Your task to perform on an android device: toggle notification dots Image 0: 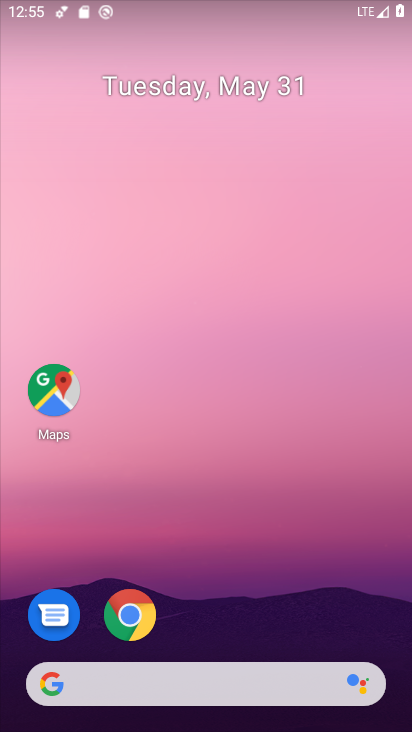
Step 0: drag from (226, 580) to (218, 1)
Your task to perform on an android device: toggle notification dots Image 1: 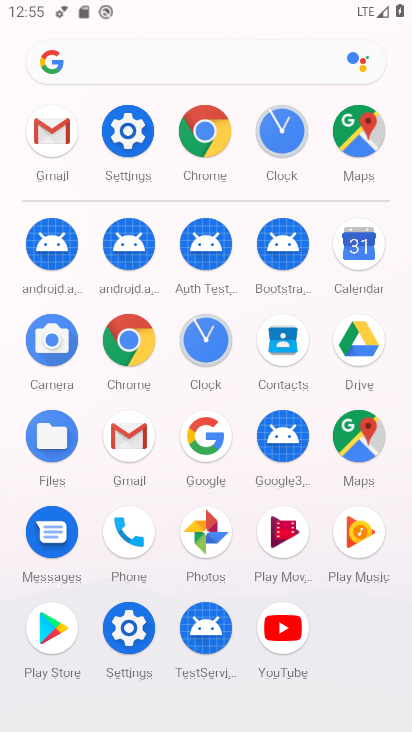
Step 1: click (131, 141)
Your task to perform on an android device: toggle notification dots Image 2: 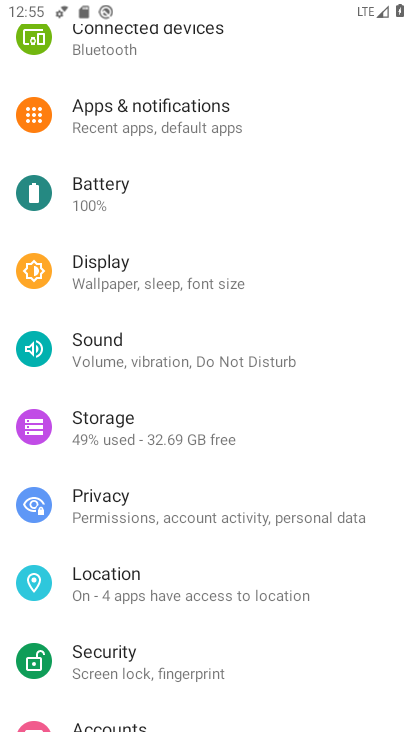
Step 2: click (178, 116)
Your task to perform on an android device: toggle notification dots Image 3: 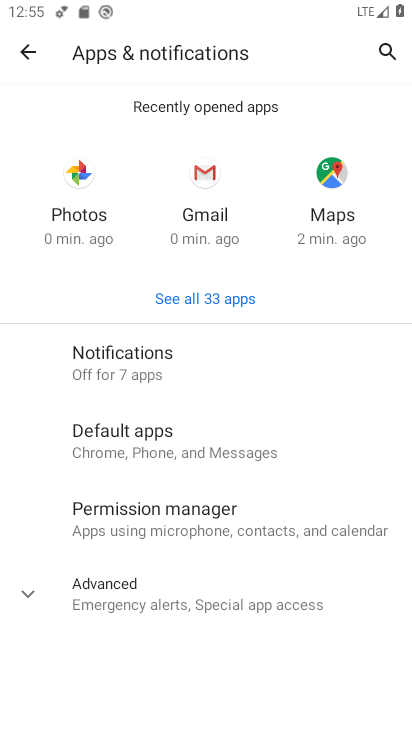
Step 3: click (138, 357)
Your task to perform on an android device: toggle notification dots Image 4: 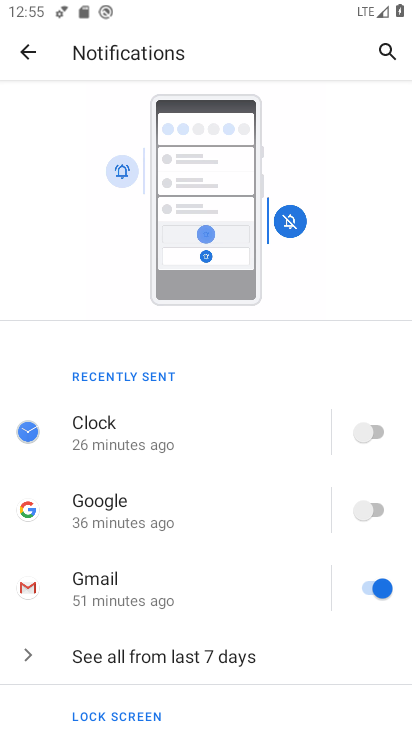
Step 4: drag from (230, 524) to (255, 145)
Your task to perform on an android device: toggle notification dots Image 5: 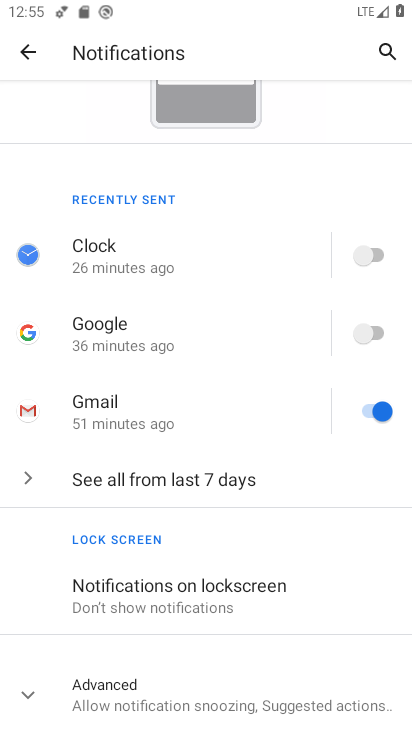
Step 5: drag from (186, 595) to (207, 377)
Your task to perform on an android device: toggle notification dots Image 6: 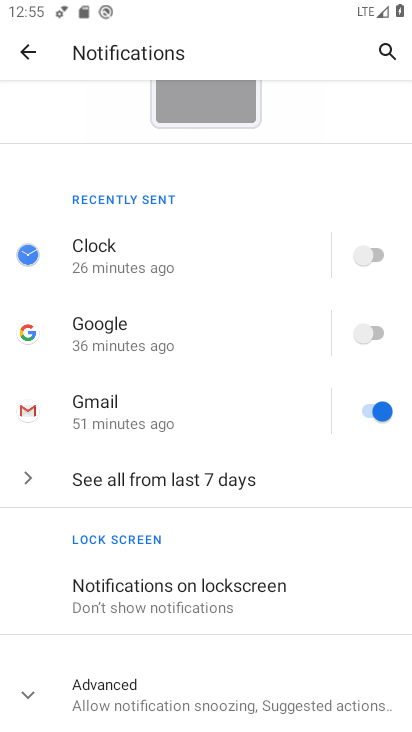
Step 6: click (122, 690)
Your task to perform on an android device: toggle notification dots Image 7: 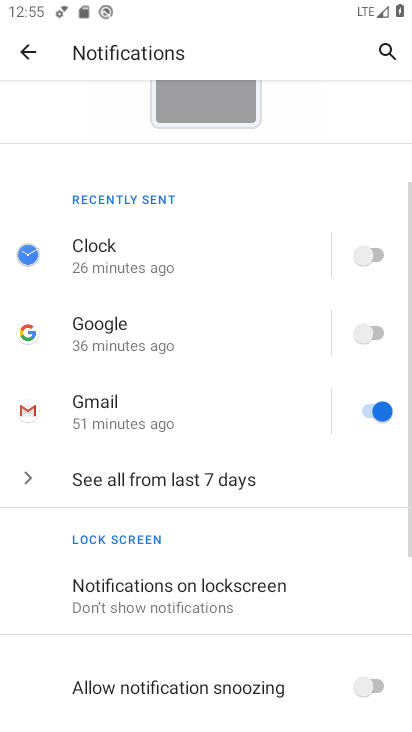
Step 7: drag from (139, 612) to (220, 156)
Your task to perform on an android device: toggle notification dots Image 8: 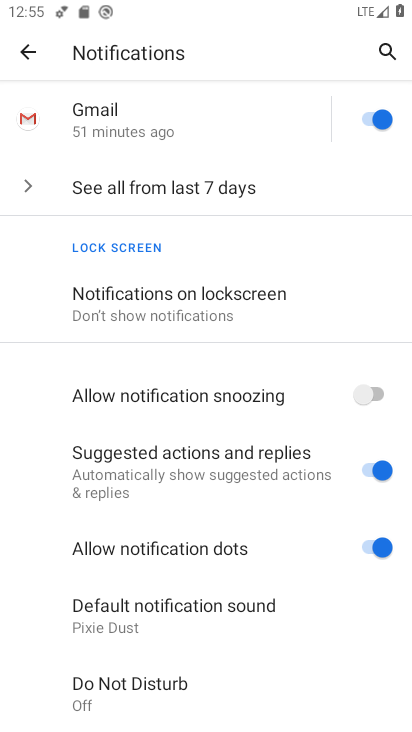
Step 8: click (353, 545)
Your task to perform on an android device: toggle notification dots Image 9: 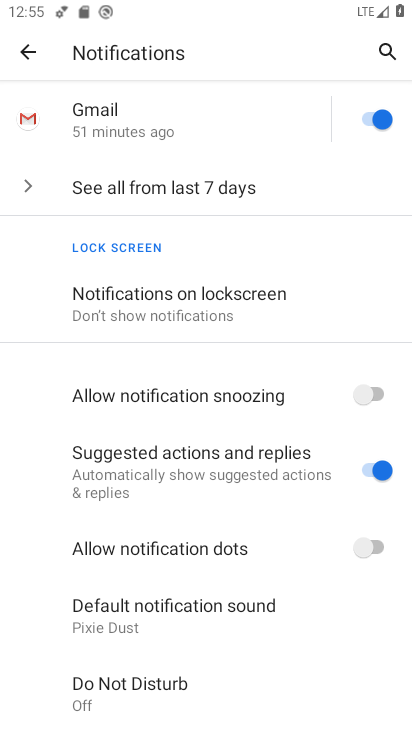
Step 9: task complete